Your task to perform on an android device: Open the calendar app, open the side menu, and click the "Day" option Image 0: 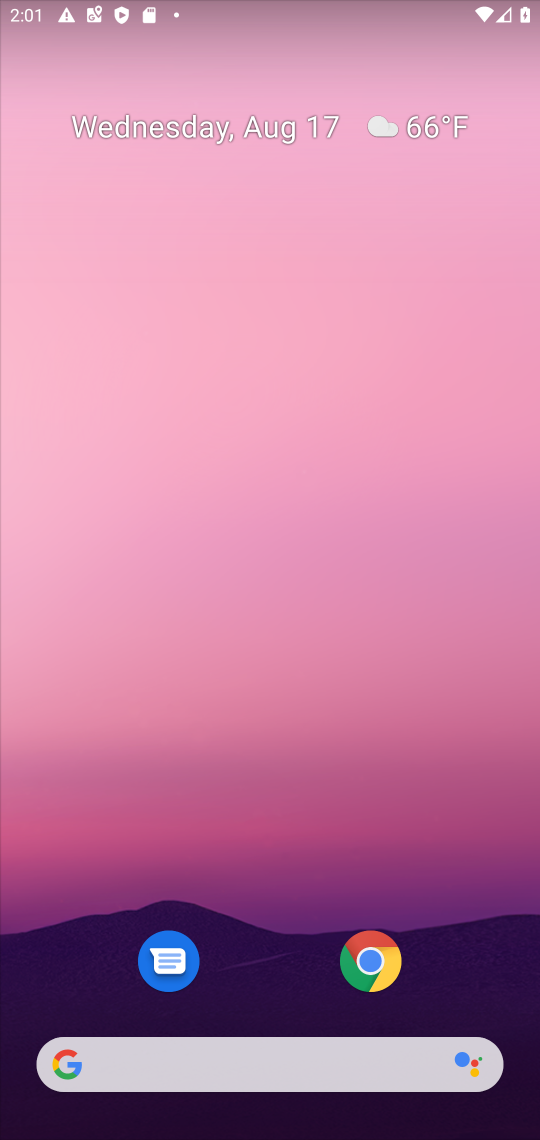
Step 0: drag from (306, 1005) to (326, 274)
Your task to perform on an android device: Open the calendar app, open the side menu, and click the "Day" option Image 1: 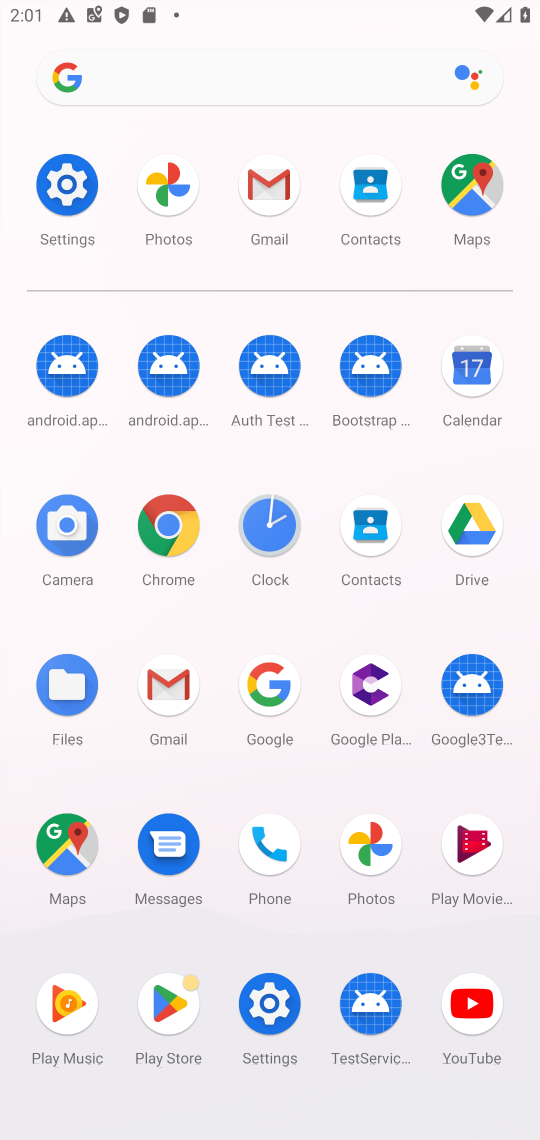
Step 1: click (485, 382)
Your task to perform on an android device: Open the calendar app, open the side menu, and click the "Day" option Image 2: 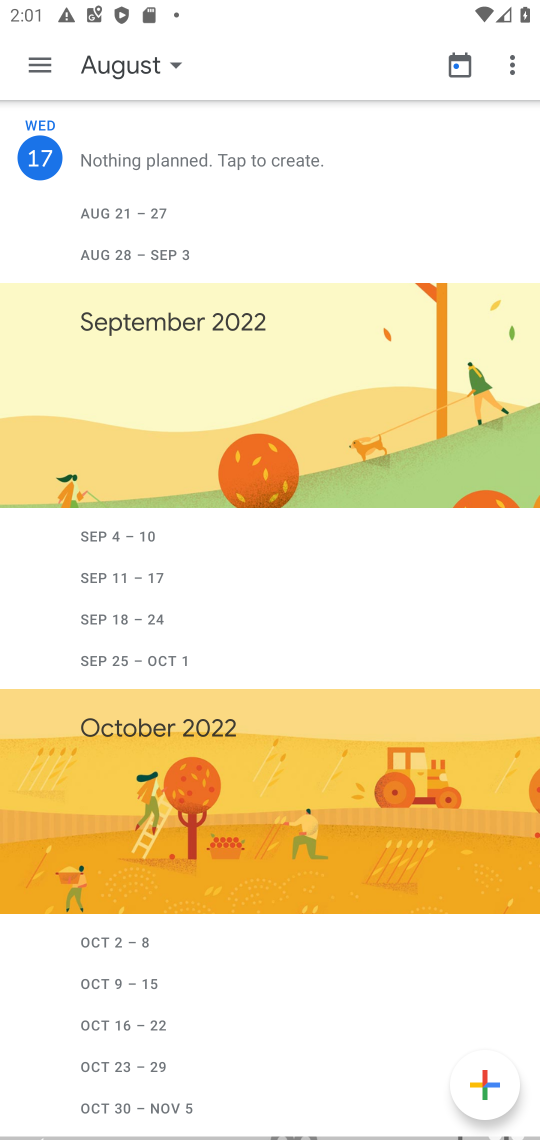
Step 2: click (45, 71)
Your task to perform on an android device: Open the calendar app, open the side menu, and click the "Day" option Image 3: 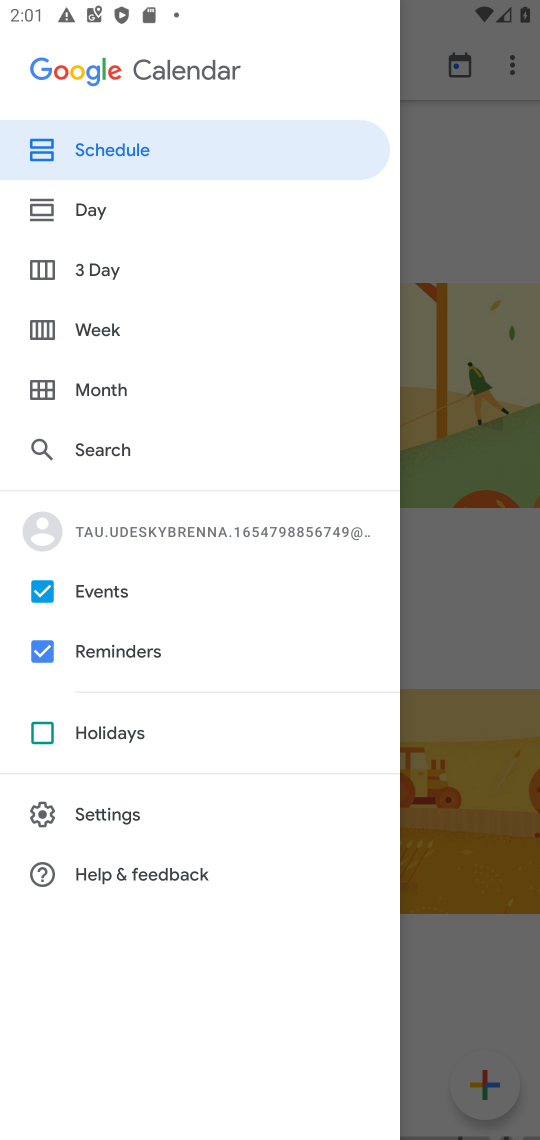
Step 3: click (103, 228)
Your task to perform on an android device: Open the calendar app, open the side menu, and click the "Day" option Image 4: 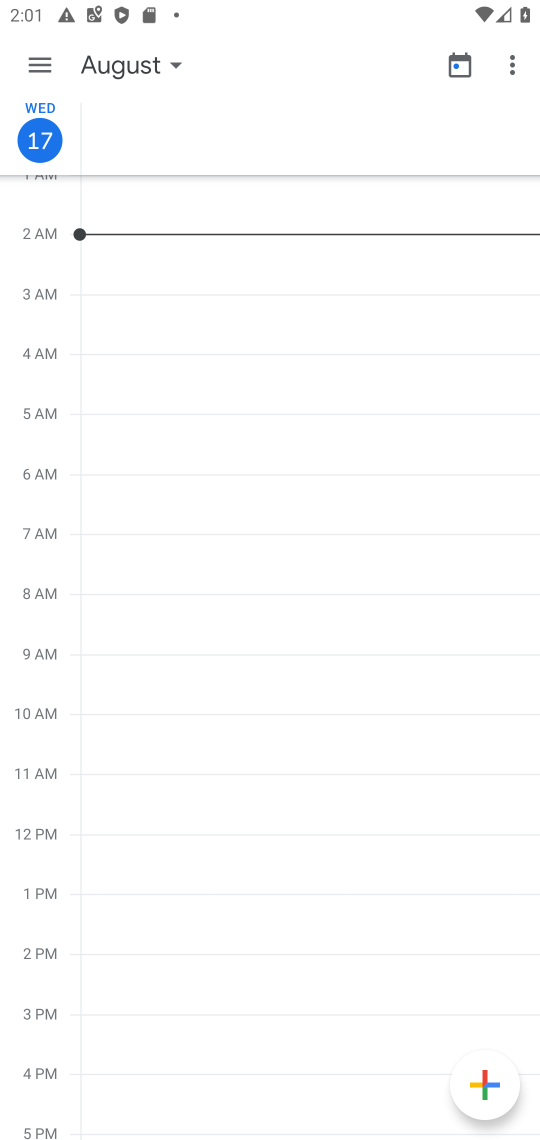
Step 4: task complete